Your task to perform on an android device: Open Google Chrome Image 0: 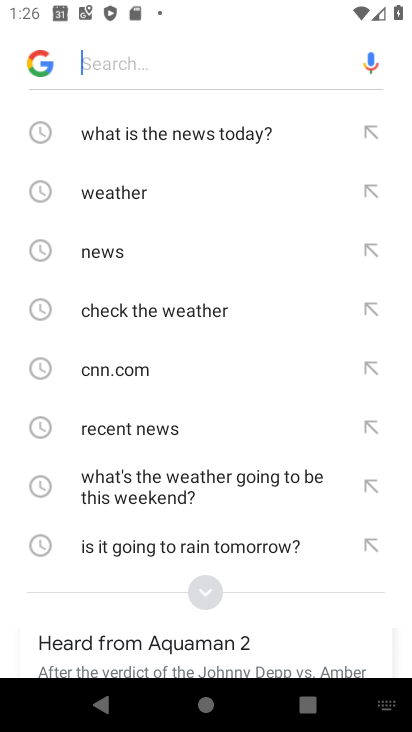
Step 0: press home button
Your task to perform on an android device: Open Google Chrome Image 1: 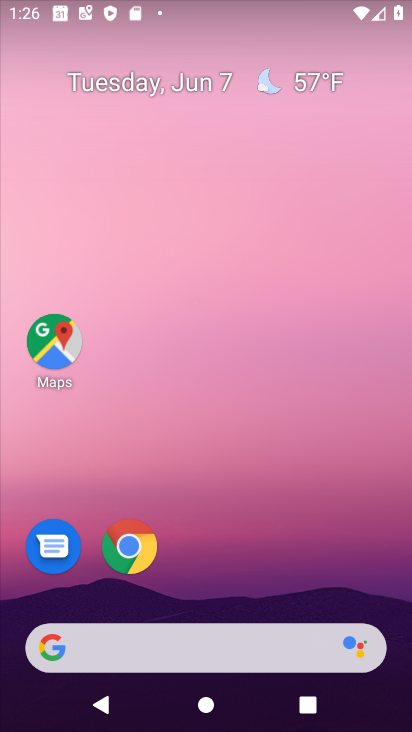
Step 1: click (136, 555)
Your task to perform on an android device: Open Google Chrome Image 2: 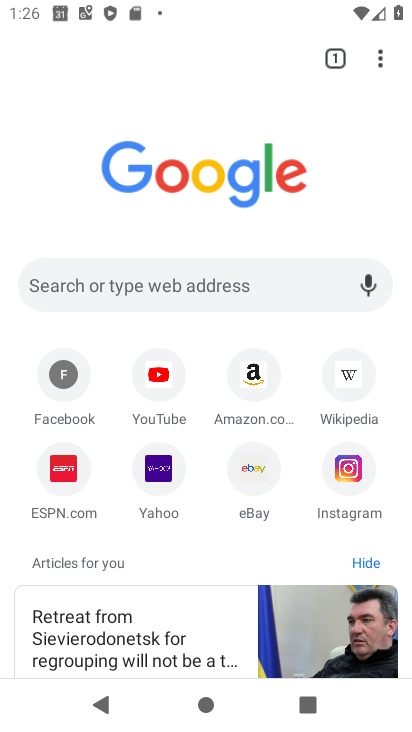
Step 2: task complete